Your task to perform on an android device: set the stopwatch Image 0: 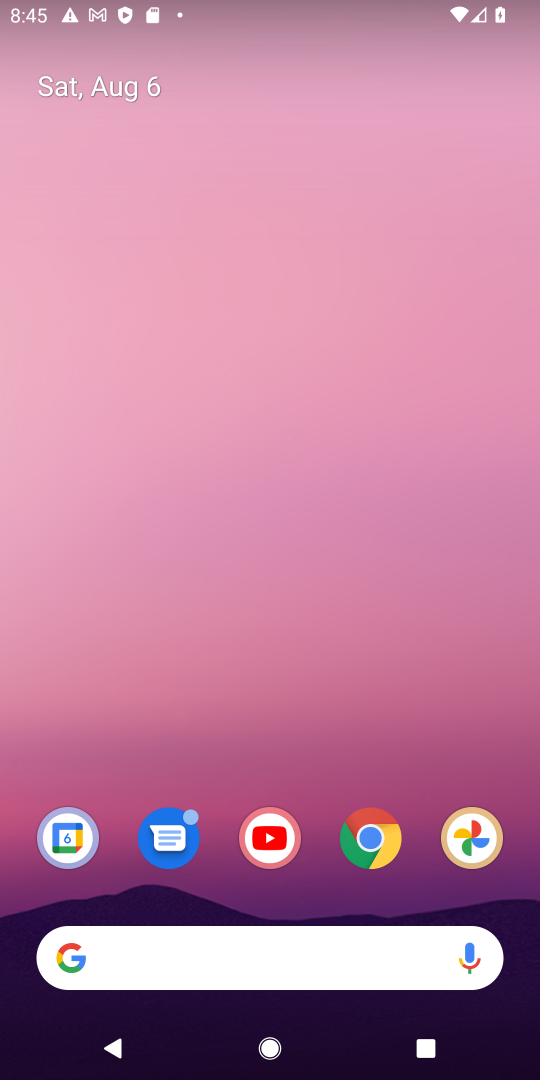
Step 0: drag from (404, 773) to (365, 174)
Your task to perform on an android device: set the stopwatch Image 1: 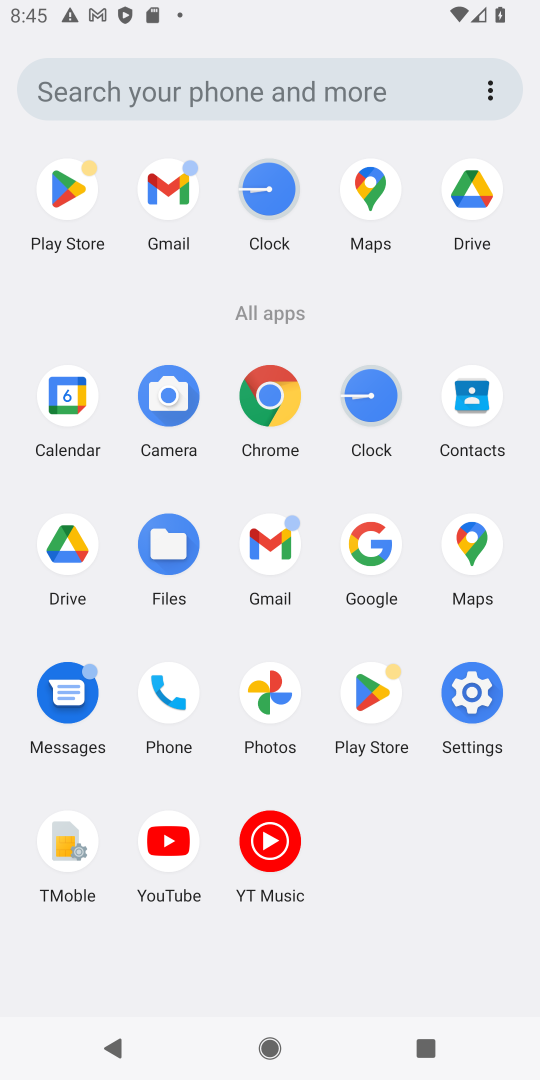
Step 1: click (260, 186)
Your task to perform on an android device: set the stopwatch Image 2: 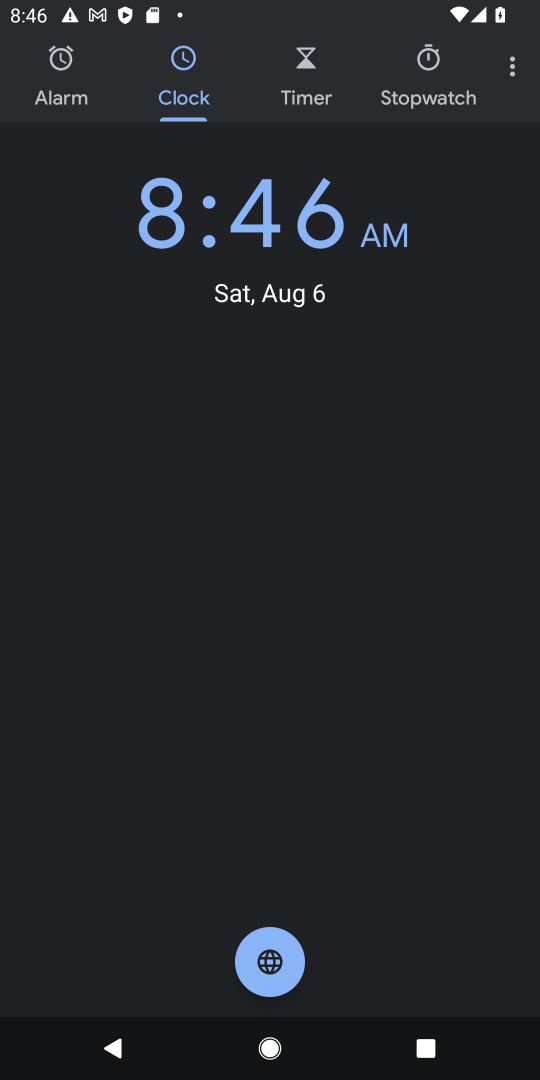
Step 2: click (426, 80)
Your task to perform on an android device: set the stopwatch Image 3: 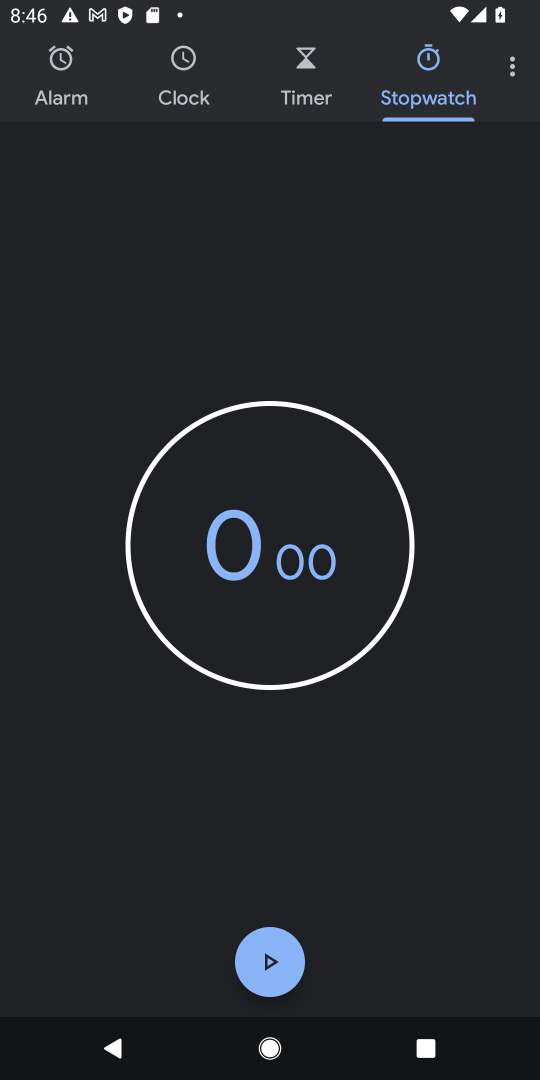
Step 3: click (167, 518)
Your task to perform on an android device: set the stopwatch Image 4: 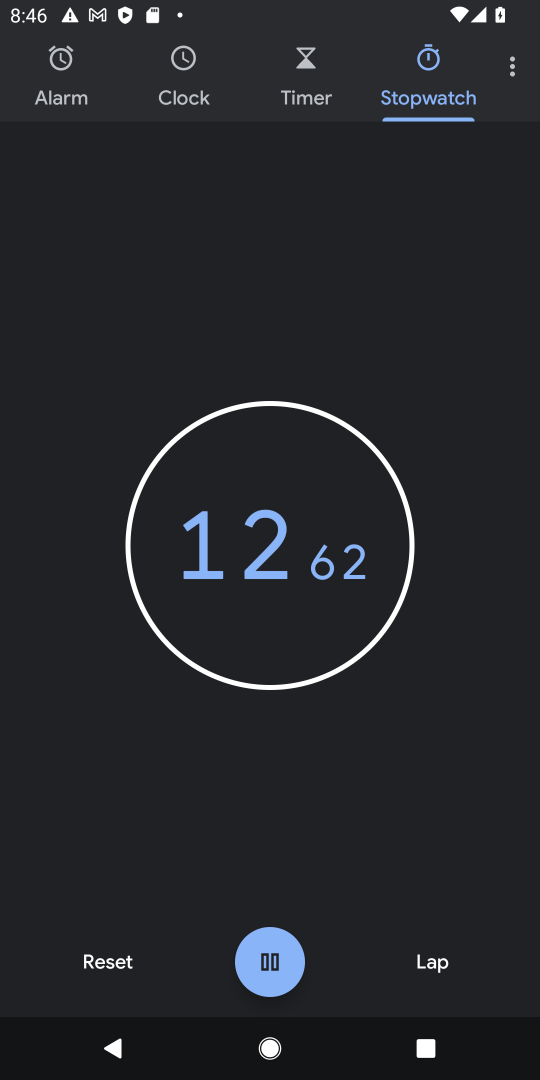
Step 4: task complete